Your task to perform on an android device: Do I have any events this weekend? Image 0: 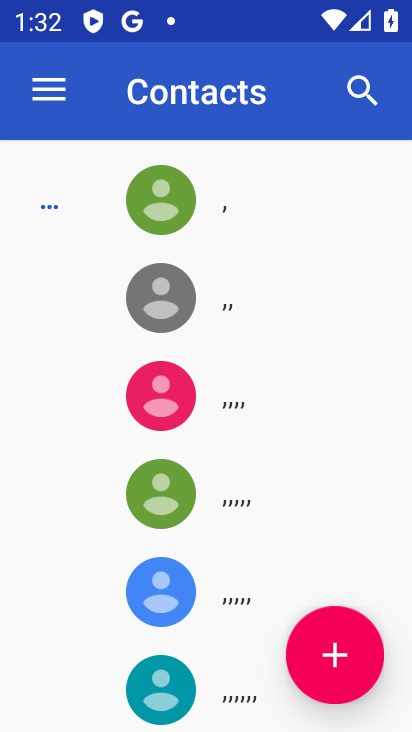
Step 0: press home button
Your task to perform on an android device: Do I have any events this weekend? Image 1: 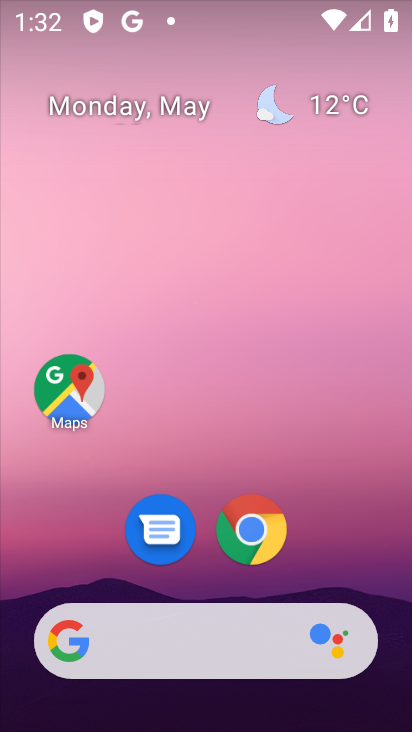
Step 1: drag from (396, 637) to (385, 527)
Your task to perform on an android device: Do I have any events this weekend? Image 2: 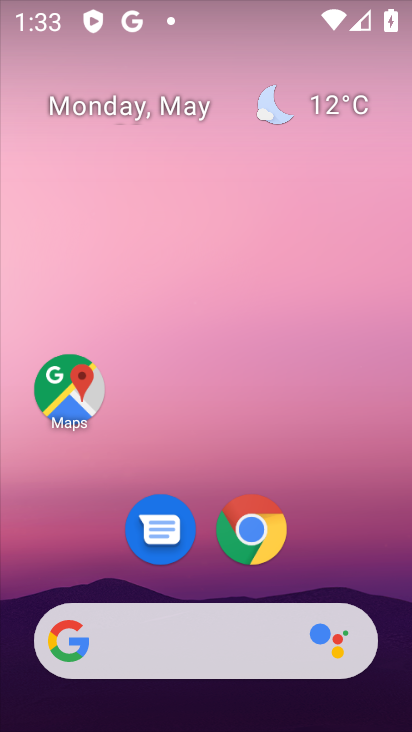
Step 2: drag from (341, 423) to (285, 89)
Your task to perform on an android device: Do I have any events this weekend? Image 3: 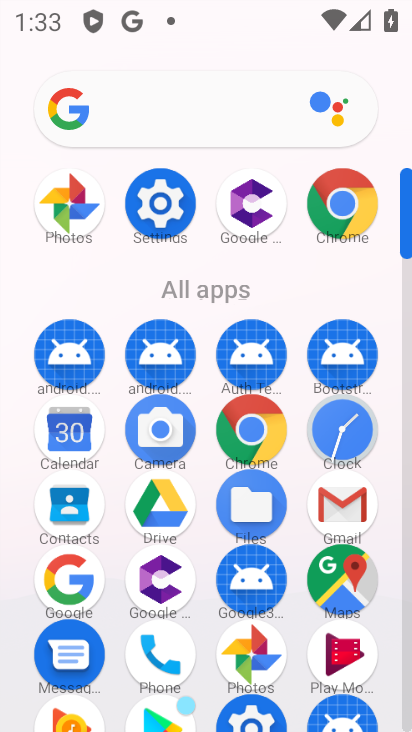
Step 3: click (67, 429)
Your task to perform on an android device: Do I have any events this weekend? Image 4: 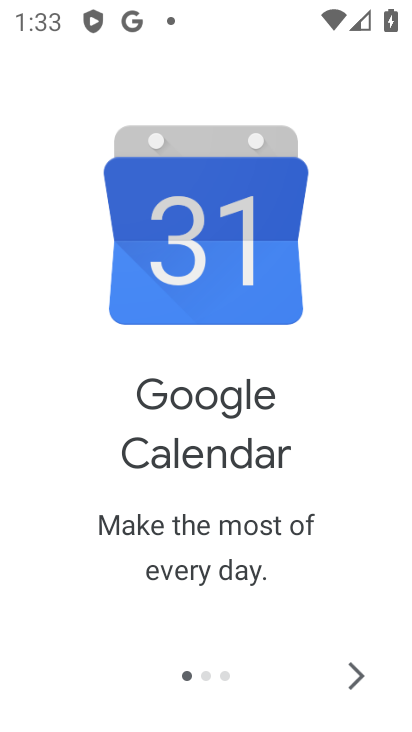
Step 4: click (350, 665)
Your task to perform on an android device: Do I have any events this weekend? Image 5: 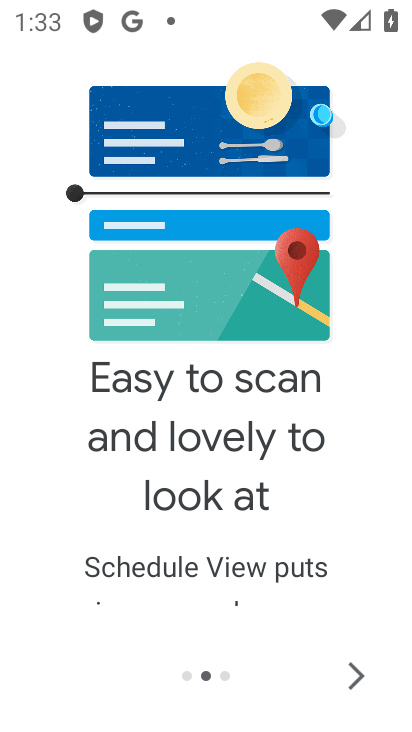
Step 5: click (350, 665)
Your task to perform on an android device: Do I have any events this weekend? Image 6: 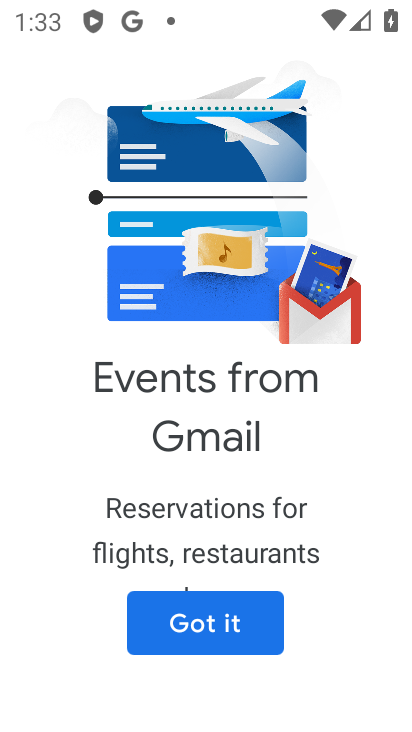
Step 6: click (198, 622)
Your task to perform on an android device: Do I have any events this weekend? Image 7: 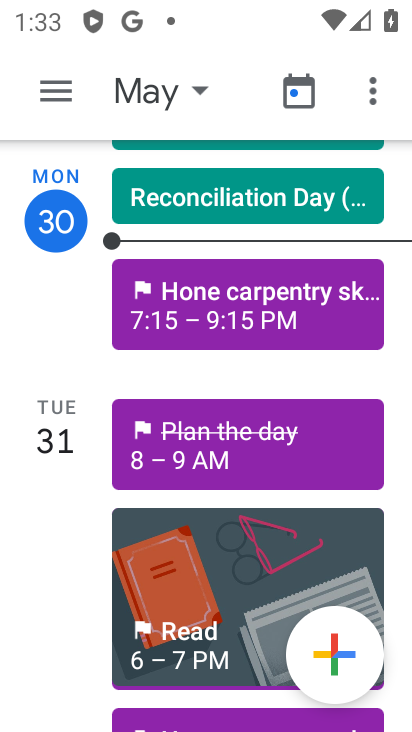
Step 7: click (54, 89)
Your task to perform on an android device: Do I have any events this weekend? Image 8: 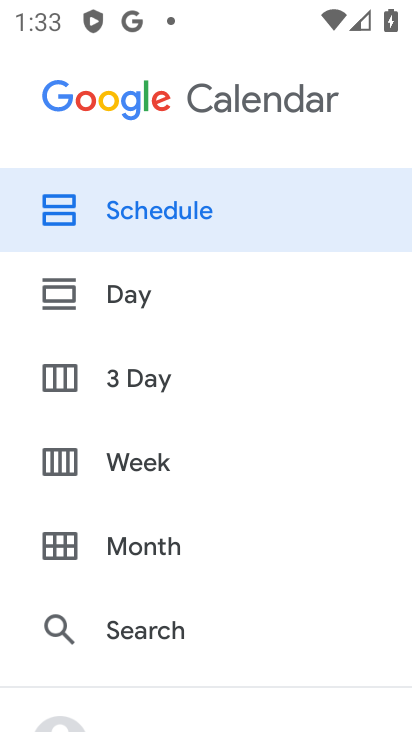
Step 8: click (144, 462)
Your task to perform on an android device: Do I have any events this weekend? Image 9: 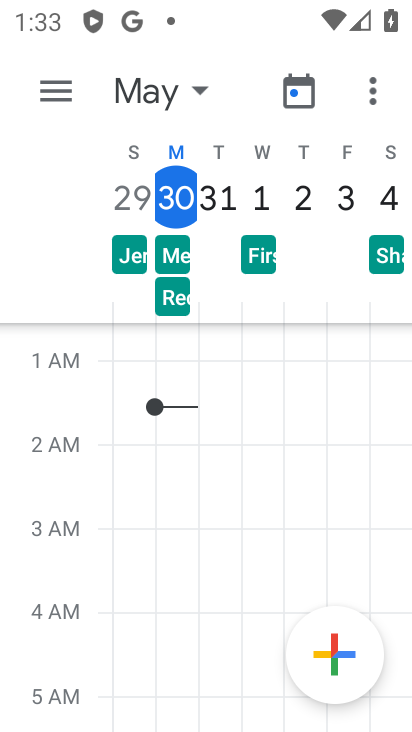
Step 9: task complete